Your task to perform on an android device: Go to Google maps Image 0: 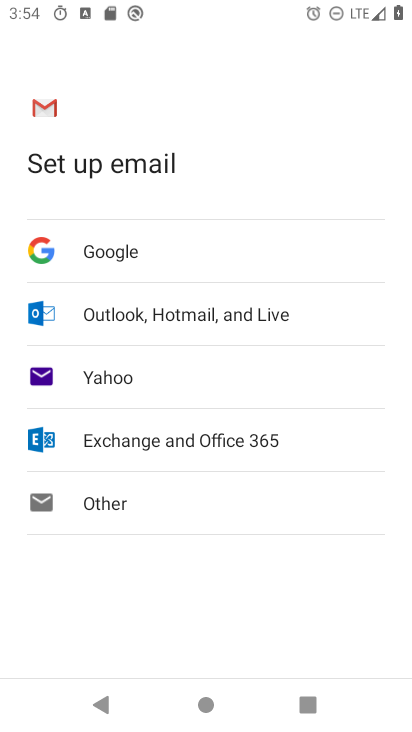
Step 0: press home button
Your task to perform on an android device: Go to Google maps Image 1: 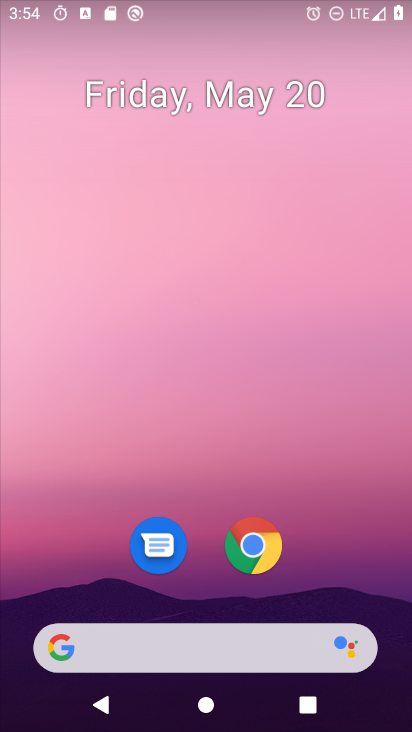
Step 1: drag from (206, 642) to (75, 79)
Your task to perform on an android device: Go to Google maps Image 2: 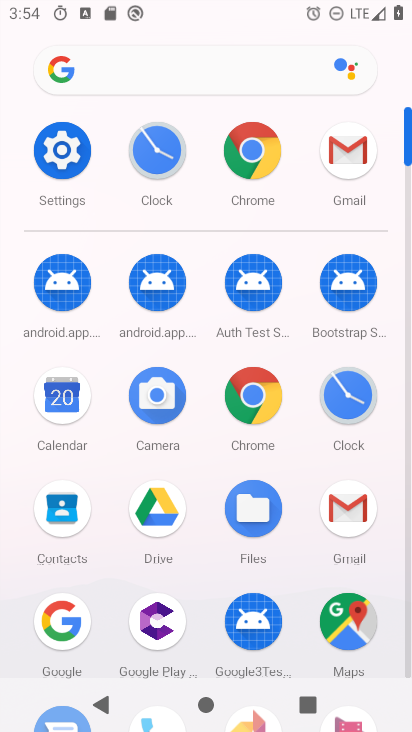
Step 2: click (342, 630)
Your task to perform on an android device: Go to Google maps Image 3: 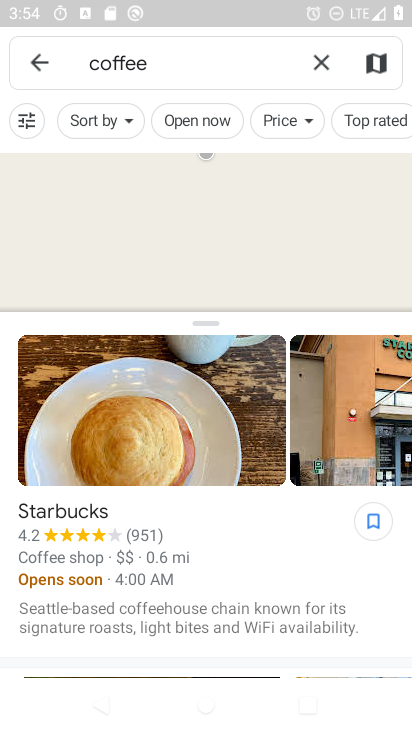
Step 3: task complete